Your task to perform on an android device: delete browsing data in the chrome app Image 0: 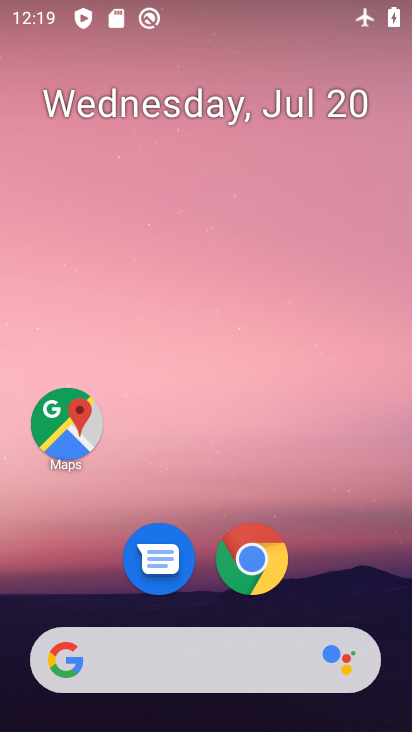
Step 0: drag from (371, 563) to (357, 145)
Your task to perform on an android device: delete browsing data in the chrome app Image 1: 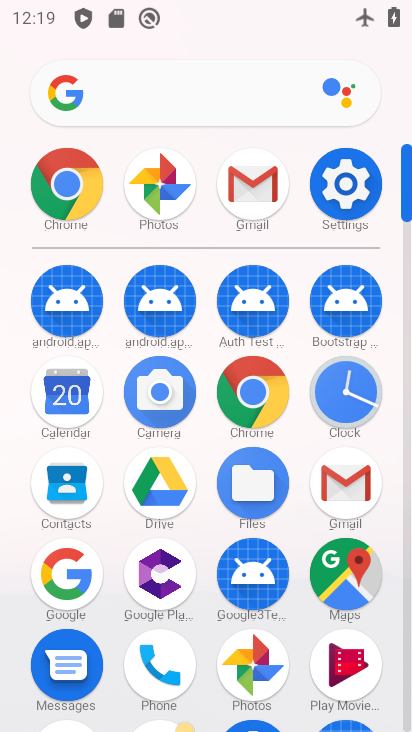
Step 1: click (242, 404)
Your task to perform on an android device: delete browsing data in the chrome app Image 2: 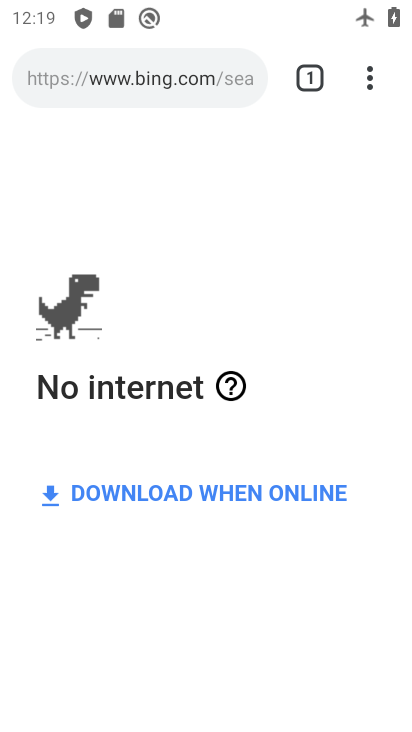
Step 2: click (373, 81)
Your task to perform on an android device: delete browsing data in the chrome app Image 3: 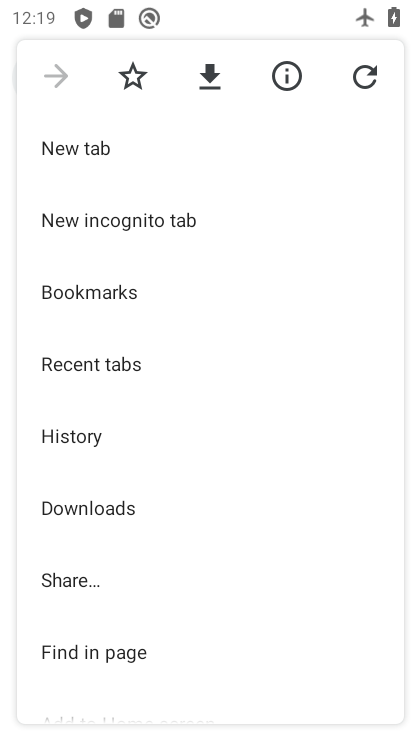
Step 3: drag from (307, 491) to (302, 342)
Your task to perform on an android device: delete browsing data in the chrome app Image 4: 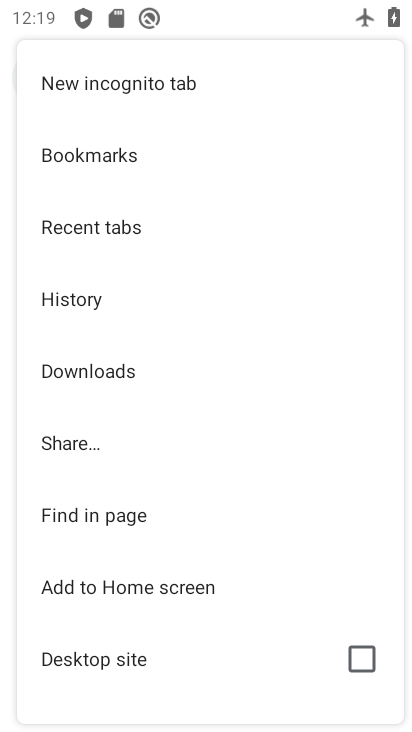
Step 4: drag from (299, 509) to (302, 381)
Your task to perform on an android device: delete browsing data in the chrome app Image 5: 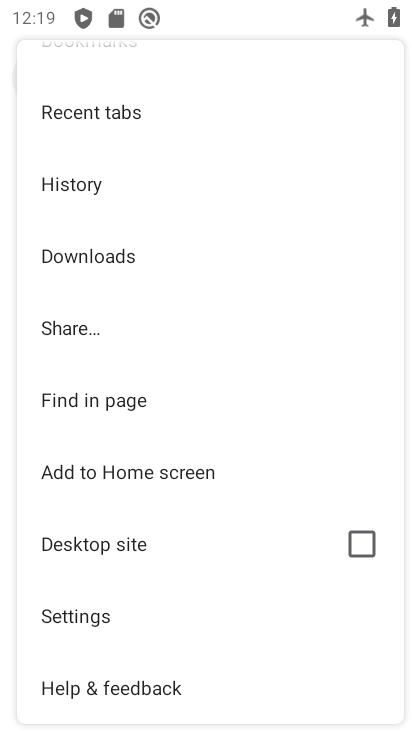
Step 5: drag from (269, 548) to (267, 416)
Your task to perform on an android device: delete browsing data in the chrome app Image 6: 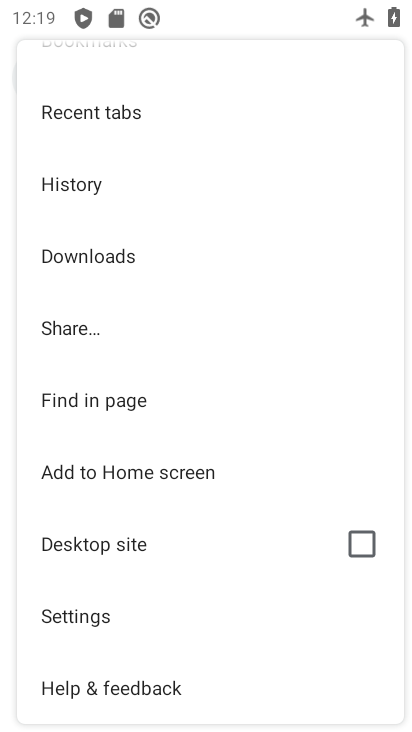
Step 6: click (186, 603)
Your task to perform on an android device: delete browsing data in the chrome app Image 7: 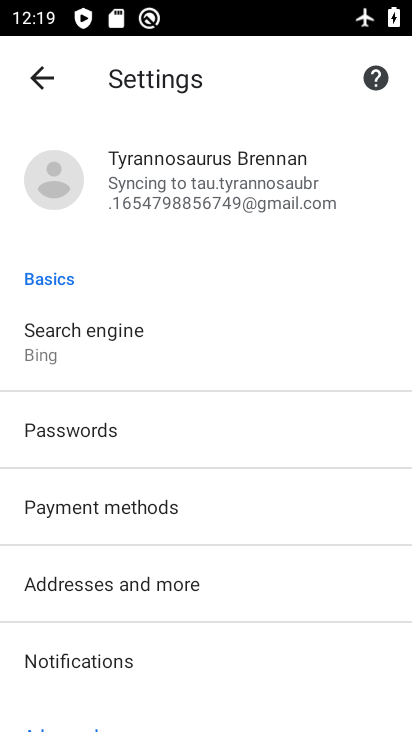
Step 7: drag from (285, 607) to (287, 537)
Your task to perform on an android device: delete browsing data in the chrome app Image 8: 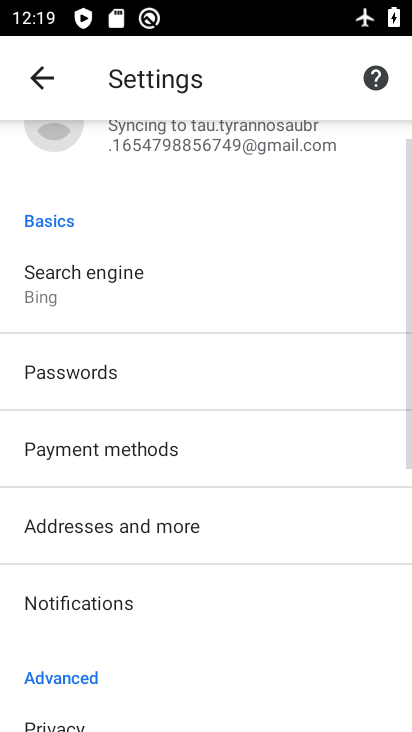
Step 8: drag from (293, 599) to (299, 517)
Your task to perform on an android device: delete browsing data in the chrome app Image 9: 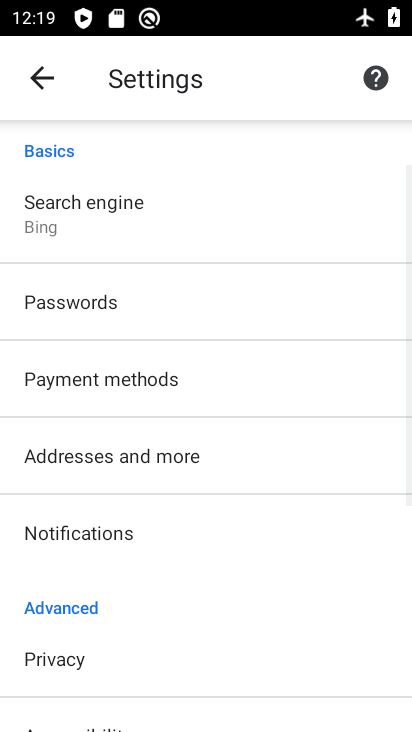
Step 9: drag from (298, 593) to (308, 501)
Your task to perform on an android device: delete browsing data in the chrome app Image 10: 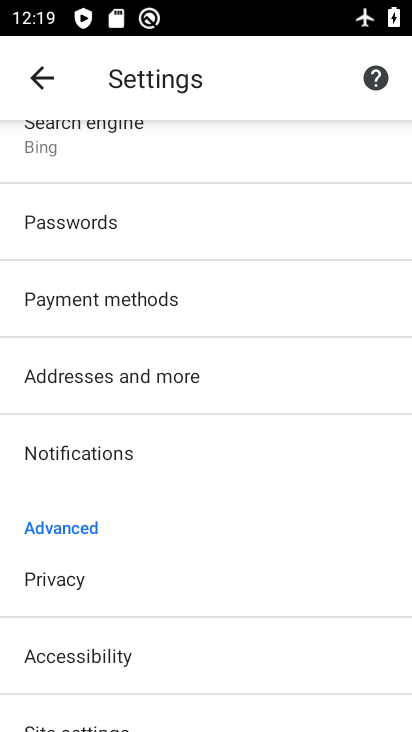
Step 10: click (282, 583)
Your task to perform on an android device: delete browsing data in the chrome app Image 11: 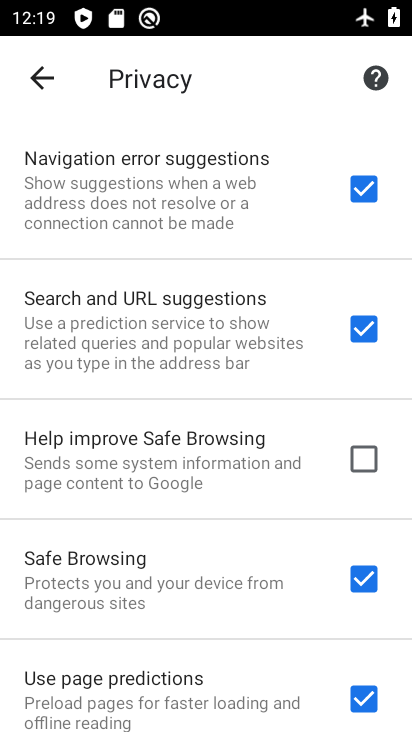
Step 11: drag from (286, 636) to (285, 512)
Your task to perform on an android device: delete browsing data in the chrome app Image 12: 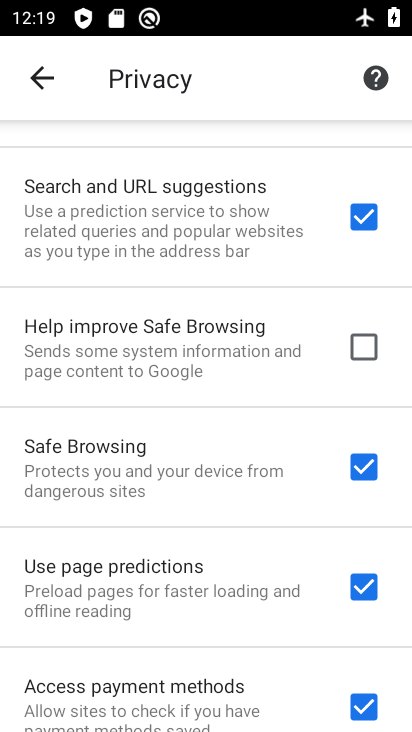
Step 12: drag from (285, 631) to (290, 459)
Your task to perform on an android device: delete browsing data in the chrome app Image 13: 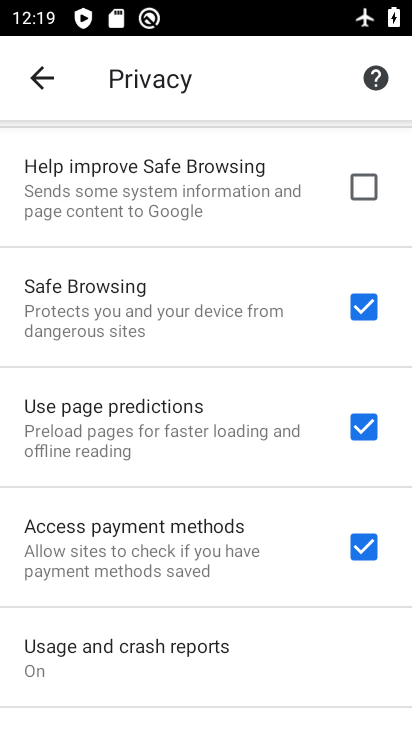
Step 13: drag from (293, 570) to (295, 456)
Your task to perform on an android device: delete browsing data in the chrome app Image 14: 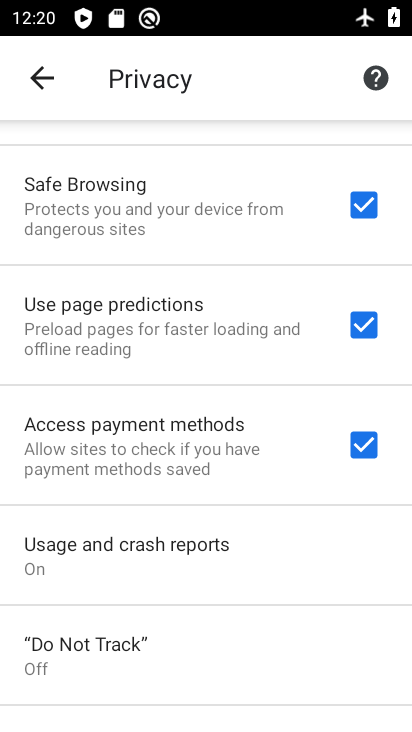
Step 14: drag from (295, 605) to (296, 403)
Your task to perform on an android device: delete browsing data in the chrome app Image 15: 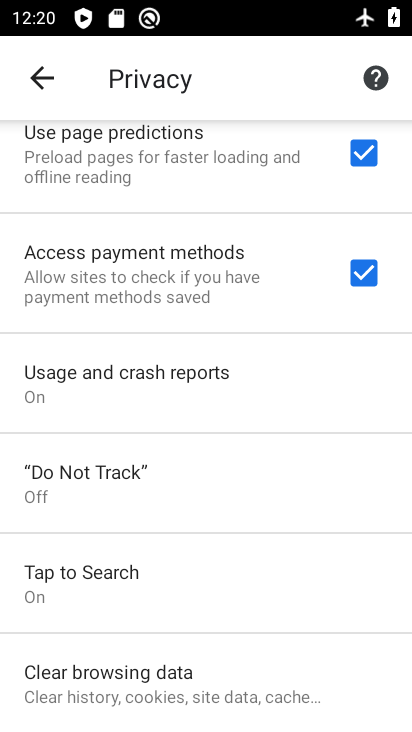
Step 15: click (284, 691)
Your task to perform on an android device: delete browsing data in the chrome app Image 16: 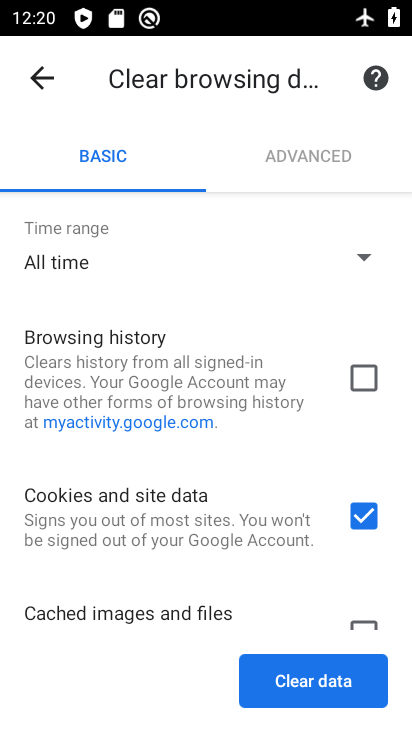
Step 16: click (355, 370)
Your task to perform on an android device: delete browsing data in the chrome app Image 17: 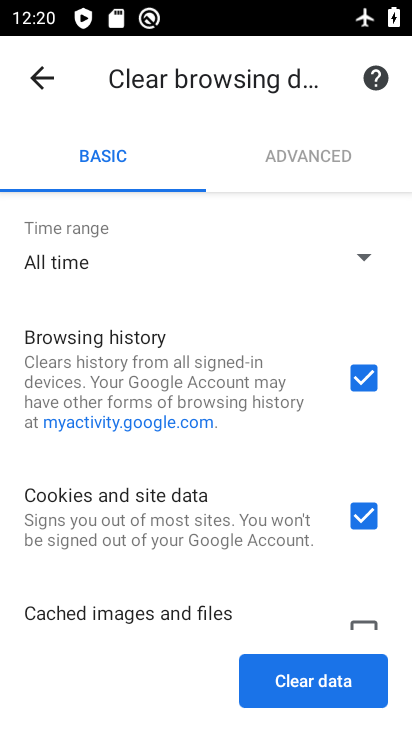
Step 17: drag from (281, 565) to (290, 438)
Your task to perform on an android device: delete browsing data in the chrome app Image 18: 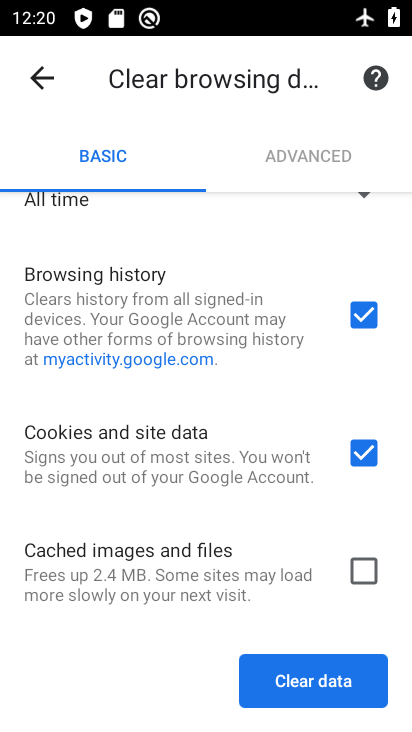
Step 18: click (349, 567)
Your task to perform on an android device: delete browsing data in the chrome app Image 19: 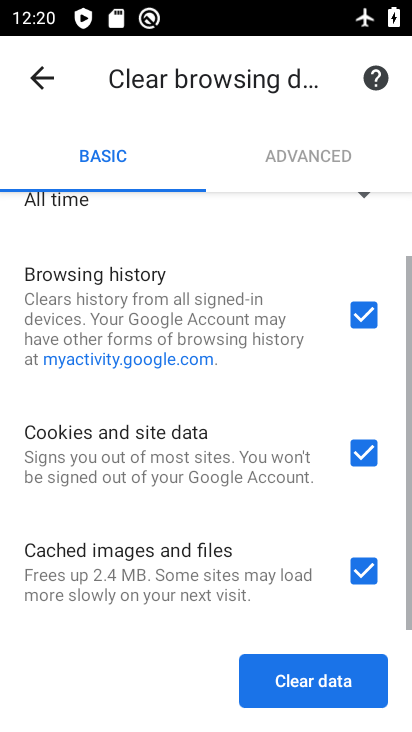
Step 19: click (348, 693)
Your task to perform on an android device: delete browsing data in the chrome app Image 20: 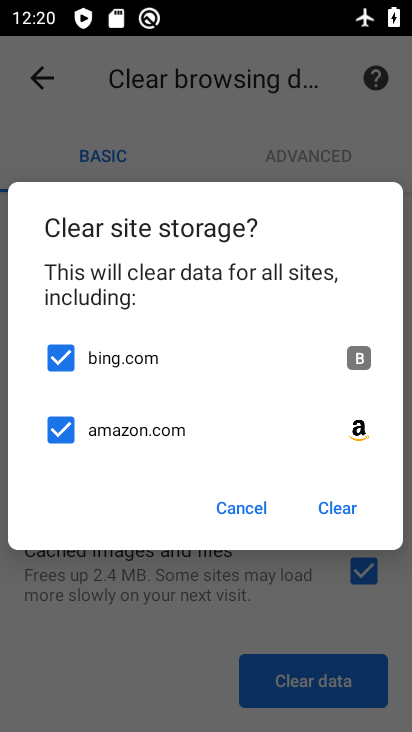
Step 20: click (329, 509)
Your task to perform on an android device: delete browsing data in the chrome app Image 21: 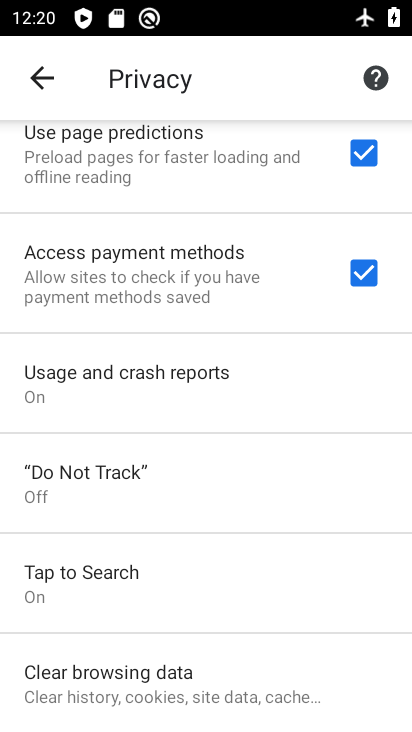
Step 21: task complete